Your task to perform on an android device: read, delete, or share a saved page in the chrome app Image 0: 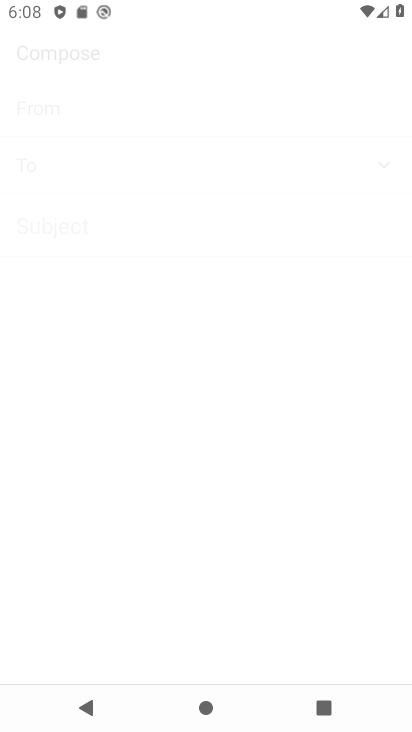
Step 0: task impossible